Your task to perform on an android device: Find coffee shops on Maps Image 0: 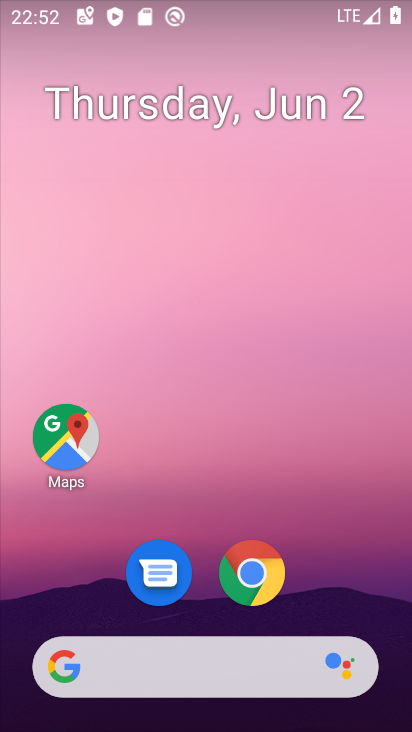
Step 0: click (69, 454)
Your task to perform on an android device: Find coffee shops on Maps Image 1: 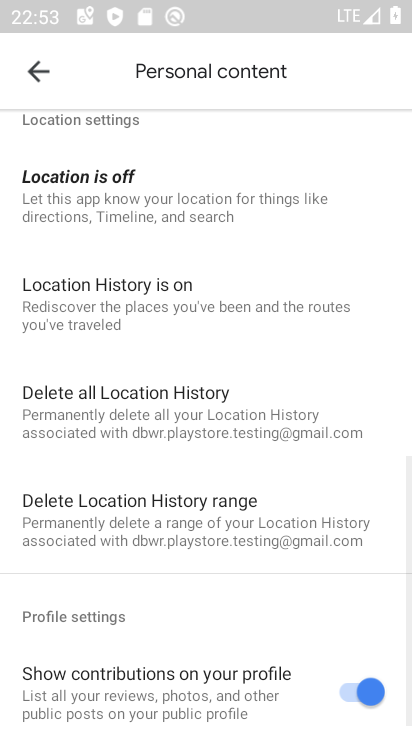
Step 1: click (44, 76)
Your task to perform on an android device: Find coffee shops on Maps Image 2: 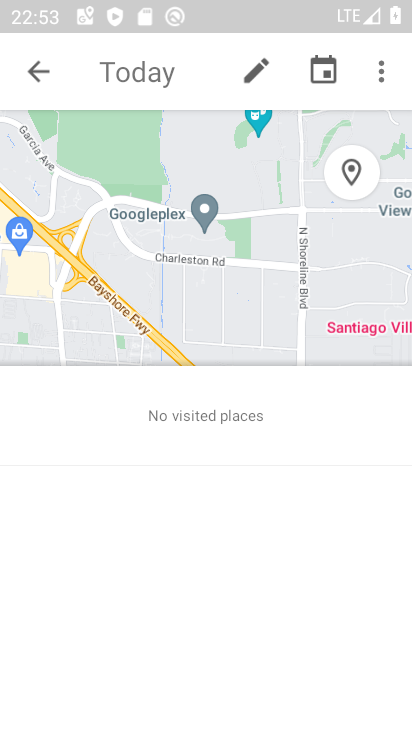
Step 2: click (27, 69)
Your task to perform on an android device: Find coffee shops on Maps Image 3: 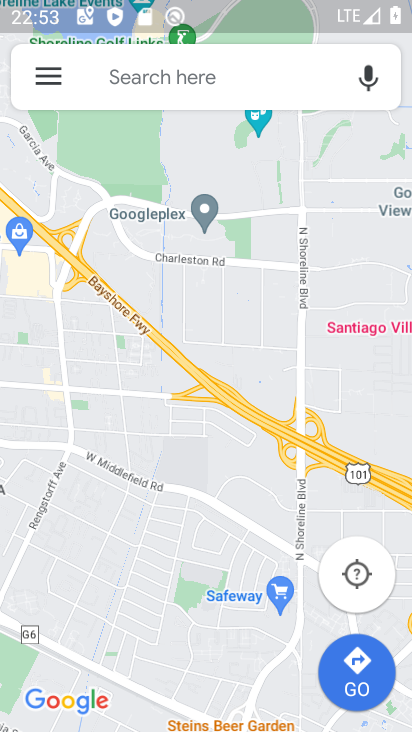
Step 3: click (115, 70)
Your task to perform on an android device: Find coffee shops on Maps Image 4: 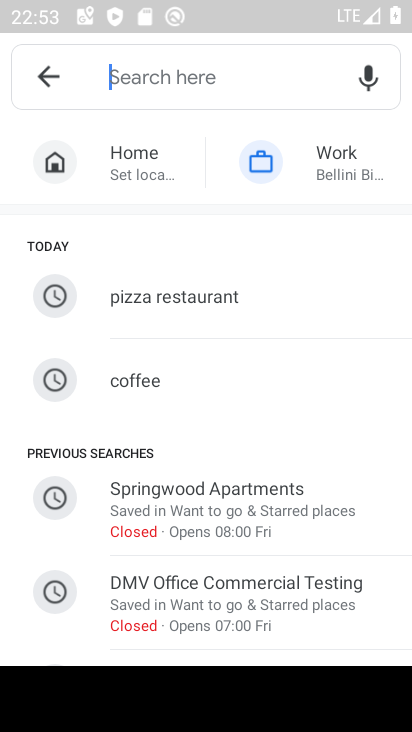
Step 4: type "coffee shop"
Your task to perform on an android device: Find coffee shops on Maps Image 5: 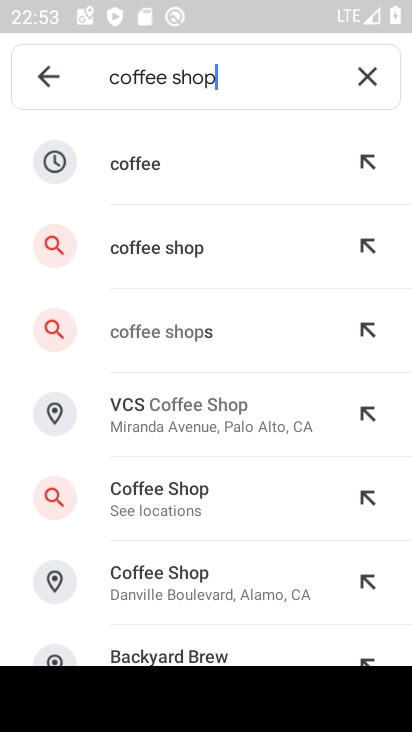
Step 5: click (164, 323)
Your task to perform on an android device: Find coffee shops on Maps Image 6: 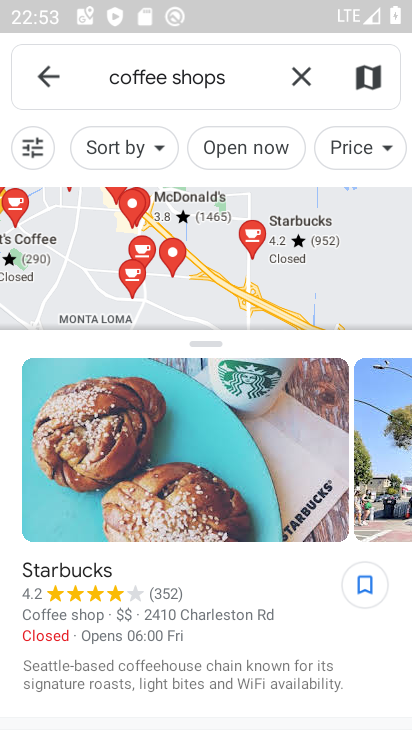
Step 6: drag from (253, 615) to (214, 246)
Your task to perform on an android device: Find coffee shops on Maps Image 7: 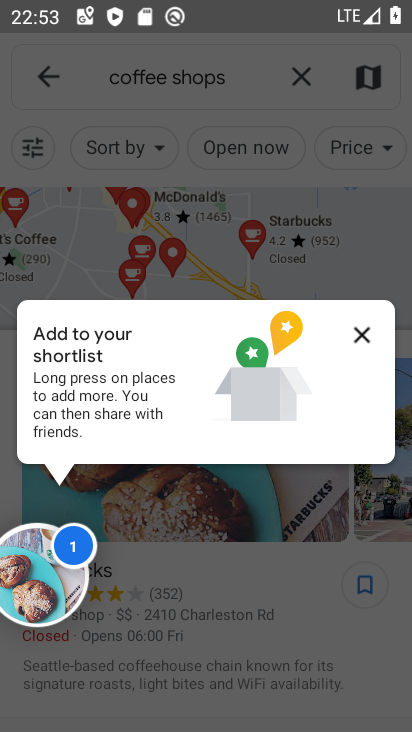
Step 7: click (368, 335)
Your task to perform on an android device: Find coffee shops on Maps Image 8: 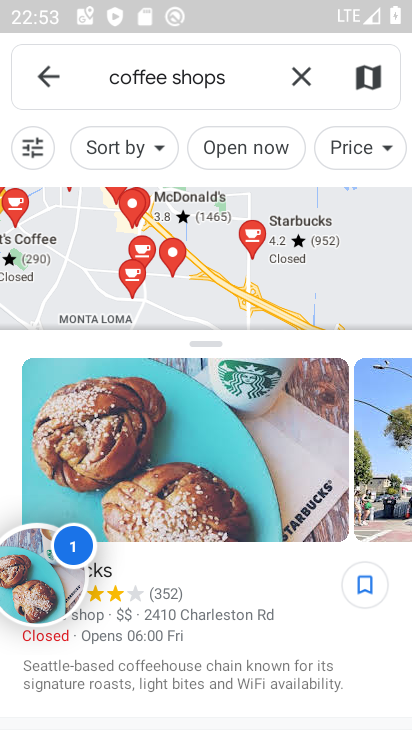
Step 8: task complete